Your task to perform on an android device: open a bookmark in the chrome app Image 0: 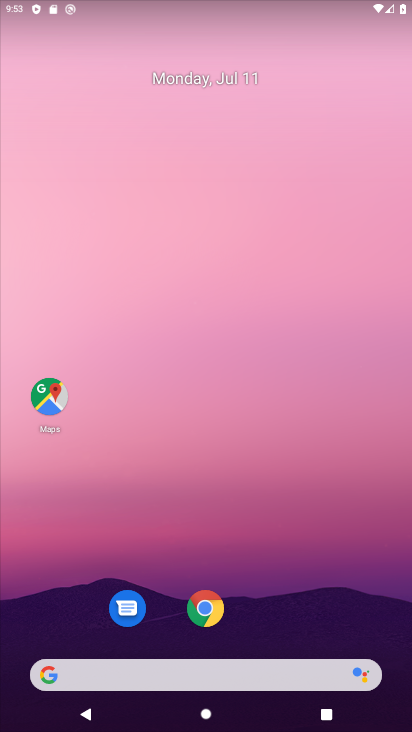
Step 0: click (208, 598)
Your task to perform on an android device: open a bookmark in the chrome app Image 1: 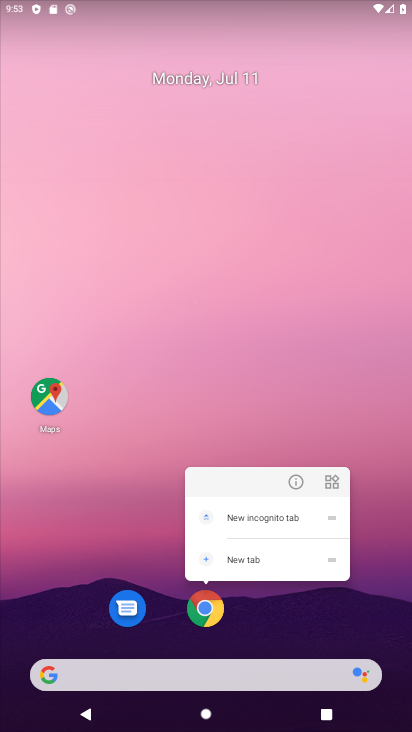
Step 1: click (208, 608)
Your task to perform on an android device: open a bookmark in the chrome app Image 2: 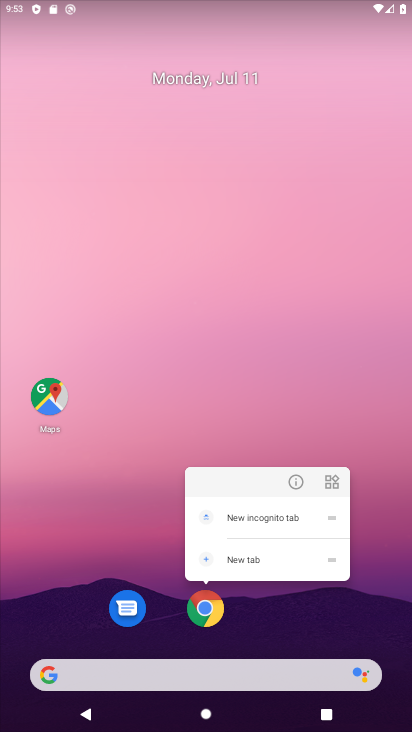
Step 2: click (206, 604)
Your task to perform on an android device: open a bookmark in the chrome app Image 3: 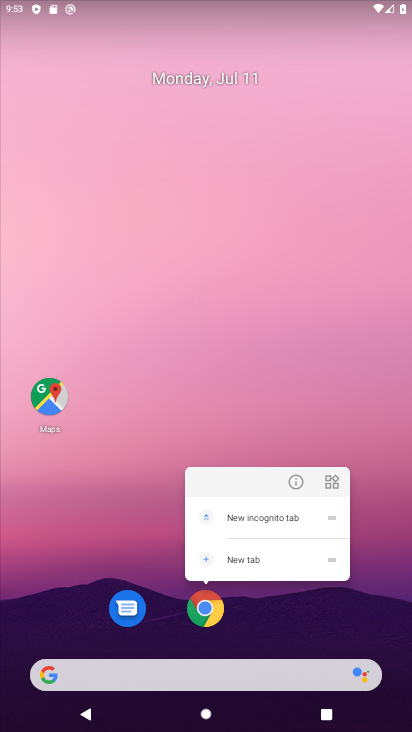
Step 3: click (205, 608)
Your task to perform on an android device: open a bookmark in the chrome app Image 4: 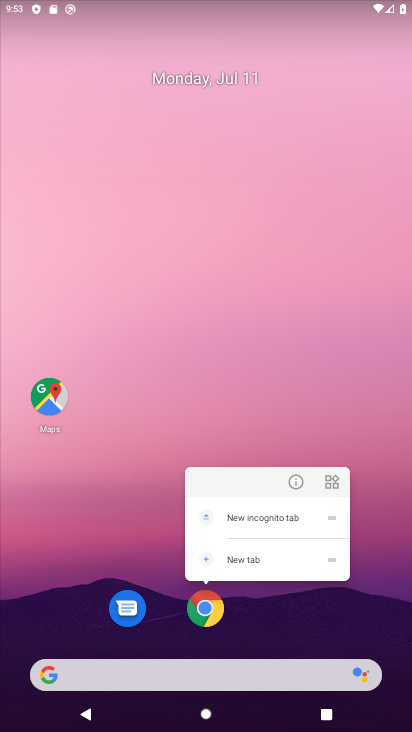
Step 4: task complete